Your task to perform on an android device: search for starred emails in the gmail app Image 0: 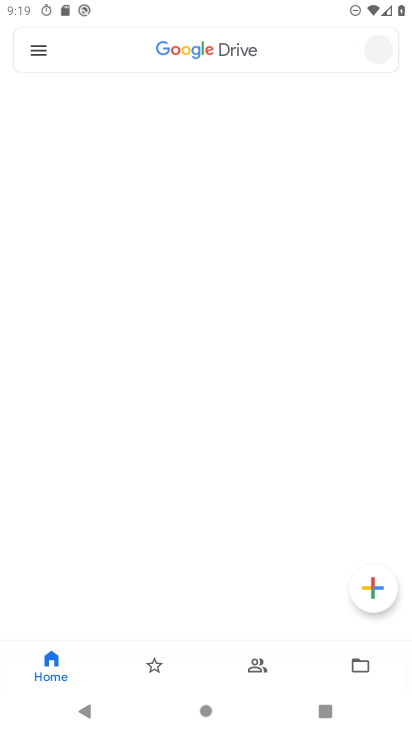
Step 0: click (128, 584)
Your task to perform on an android device: search for starred emails in the gmail app Image 1: 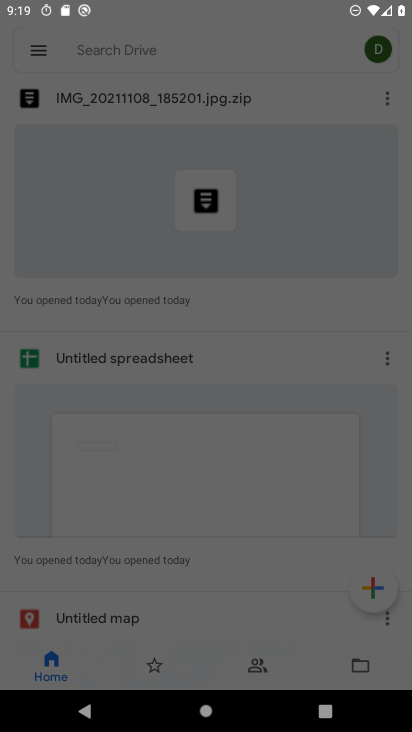
Step 1: press home button
Your task to perform on an android device: search for starred emails in the gmail app Image 2: 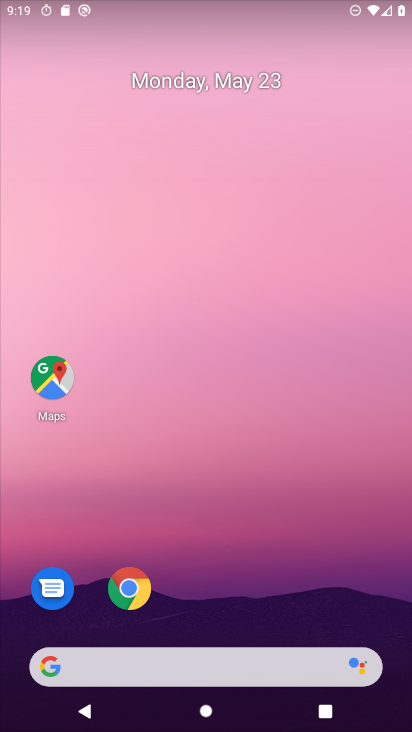
Step 2: drag from (403, 701) to (380, 97)
Your task to perform on an android device: search for starred emails in the gmail app Image 3: 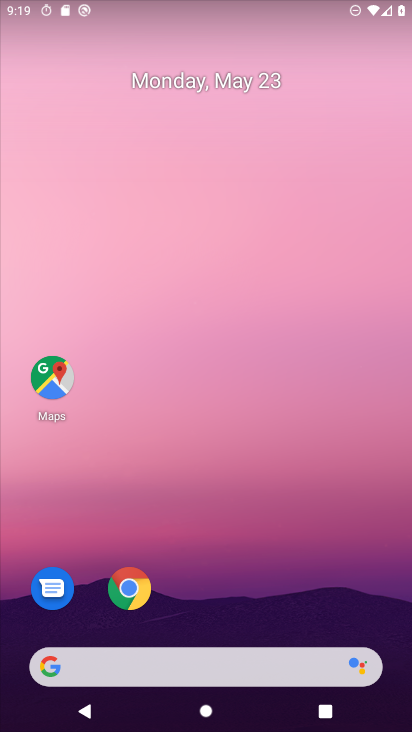
Step 3: drag from (399, 692) to (370, 131)
Your task to perform on an android device: search for starred emails in the gmail app Image 4: 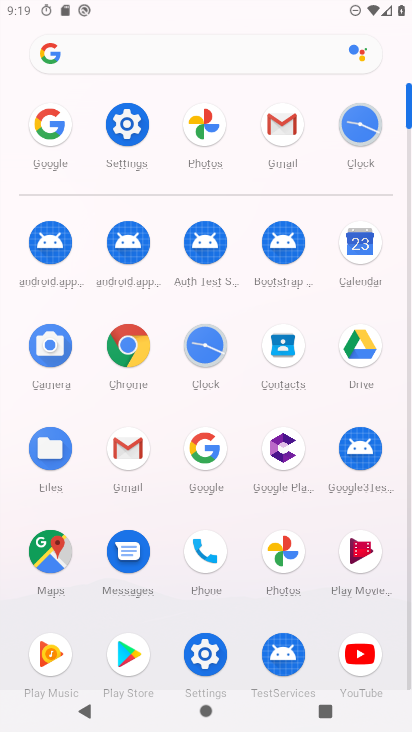
Step 4: click (133, 441)
Your task to perform on an android device: search for starred emails in the gmail app Image 5: 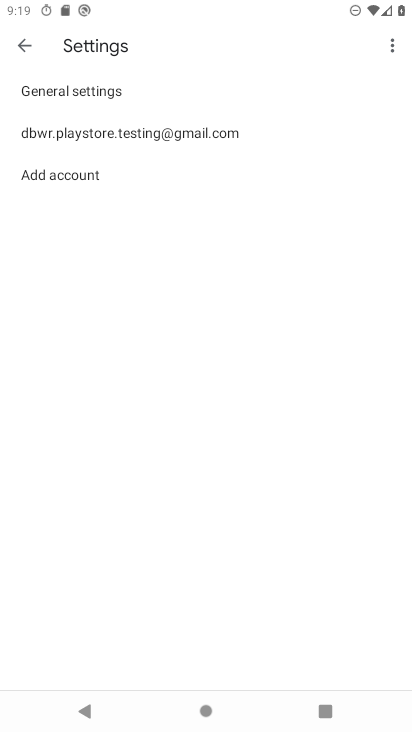
Step 5: click (24, 50)
Your task to perform on an android device: search for starred emails in the gmail app Image 6: 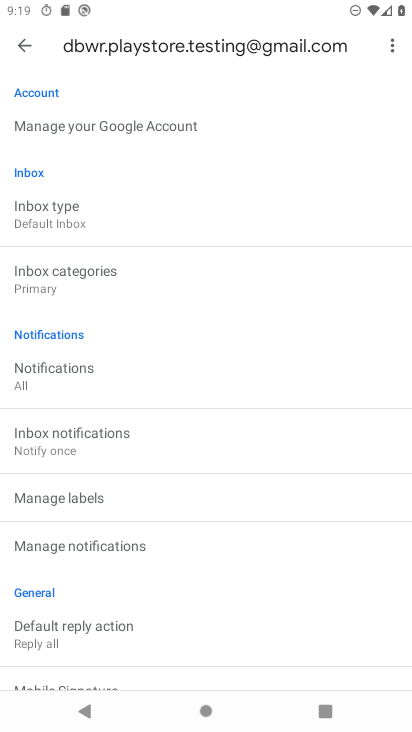
Step 6: click (21, 51)
Your task to perform on an android device: search for starred emails in the gmail app Image 7: 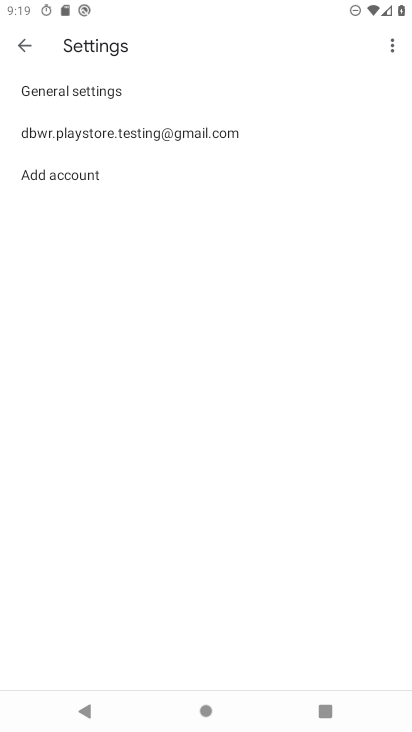
Step 7: click (27, 42)
Your task to perform on an android device: search for starred emails in the gmail app Image 8: 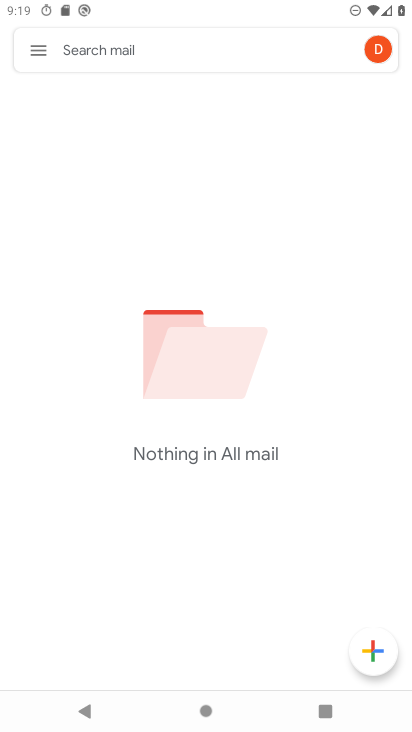
Step 8: click (27, 48)
Your task to perform on an android device: search for starred emails in the gmail app Image 9: 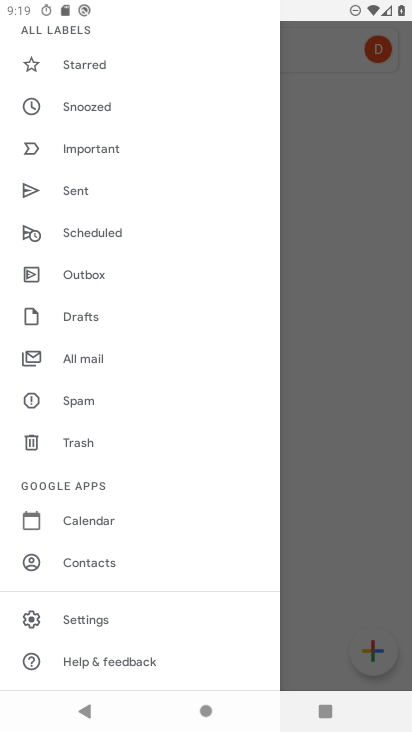
Step 9: click (75, 63)
Your task to perform on an android device: search for starred emails in the gmail app Image 10: 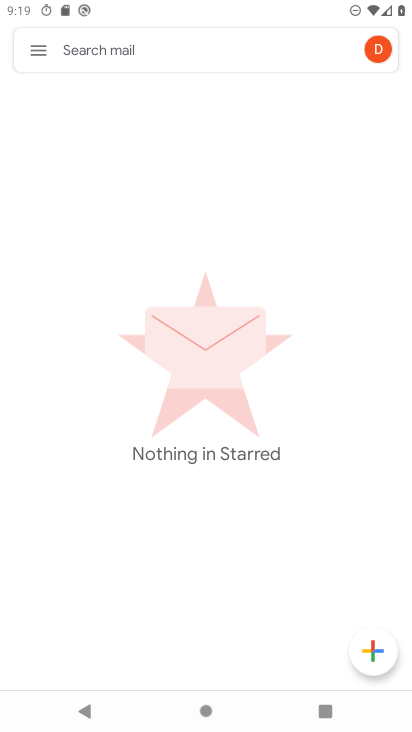
Step 10: task complete